Your task to perform on an android device: turn on bluetooth scan Image 0: 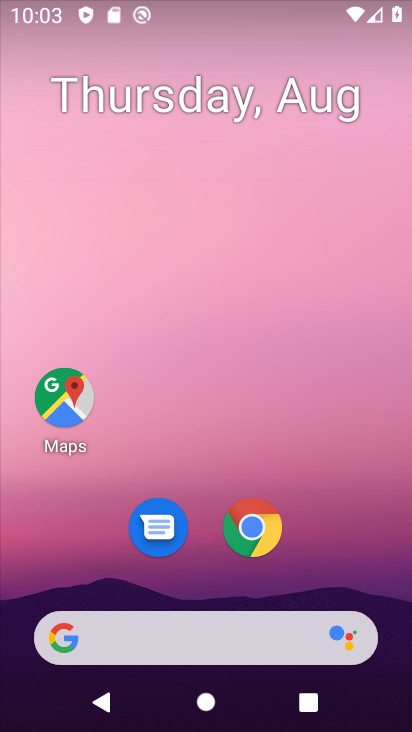
Step 0: drag from (204, 446) to (323, 95)
Your task to perform on an android device: turn on bluetooth scan Image 1: 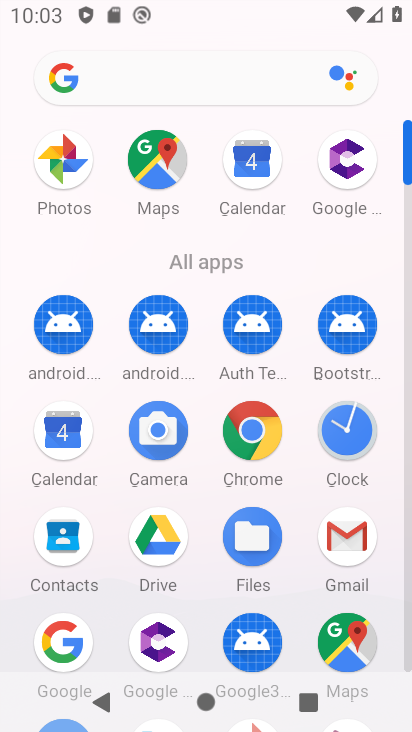
Step 1: drag from (226, 593) to (340, 51)
Your task to perform on an android device: turn on bluetooth scan Image 2: 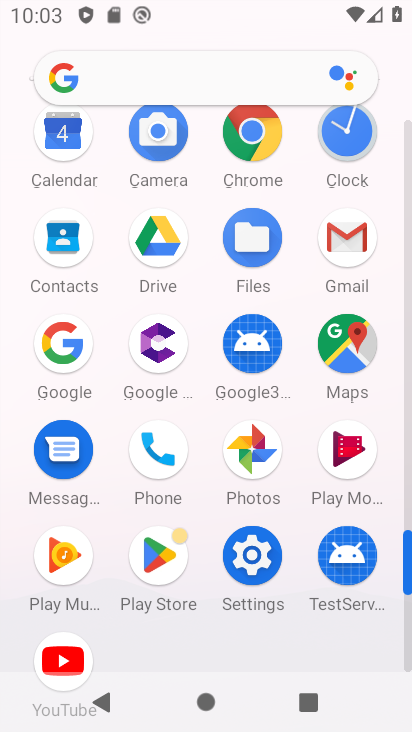
Step 2: click (240, 551)
Your task to perform on an android device: turn on bluetooth scan Image 3: 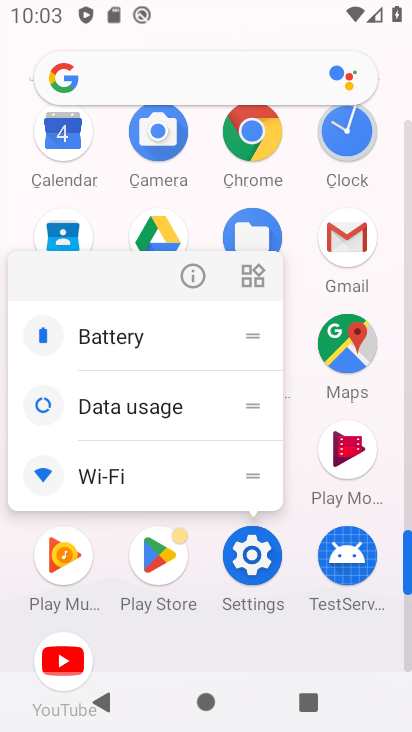
Step 3: click (261, 555)
Your task to perform on an android device: turn on bluetooth scan Image 4: 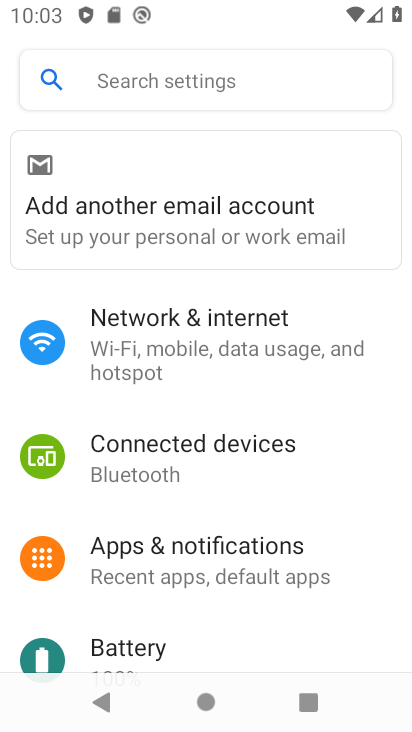
Step 4: drag from (327, 618) to (350, 36)
Your task to perform on an android device: turn on bluetooth scan Image 5: 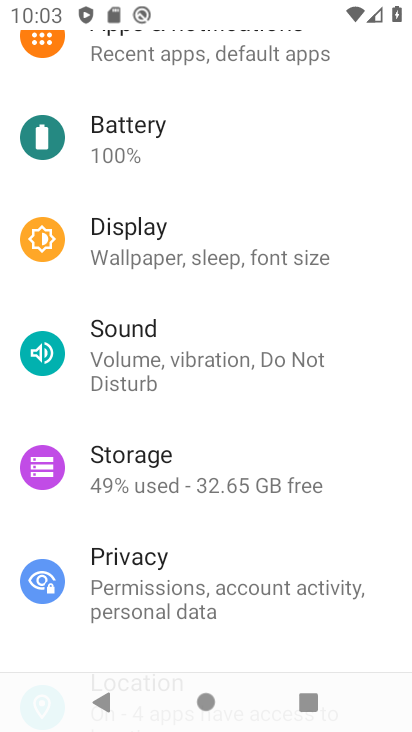
Step 5: drag from (198, 609) to (122, 725)
Your task to perform on an android device: turn on bluetooth scan Image 6: 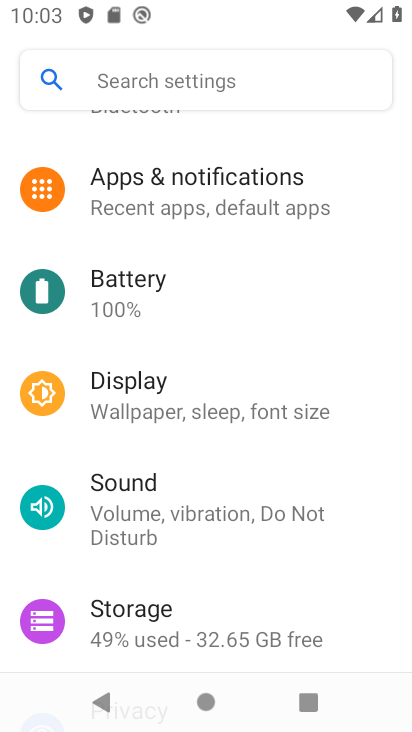
Step 6: drag from (180, 614) to (306, 65)
Your task to perform on an android device: turn on bluetooth scan Image 7: 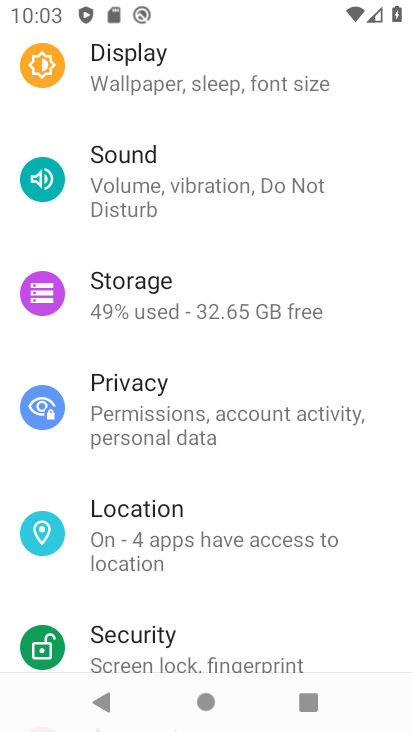
Step 7: click (212, 540)
Your task to perform on an android device: turn on bluetooth scan Image 8: 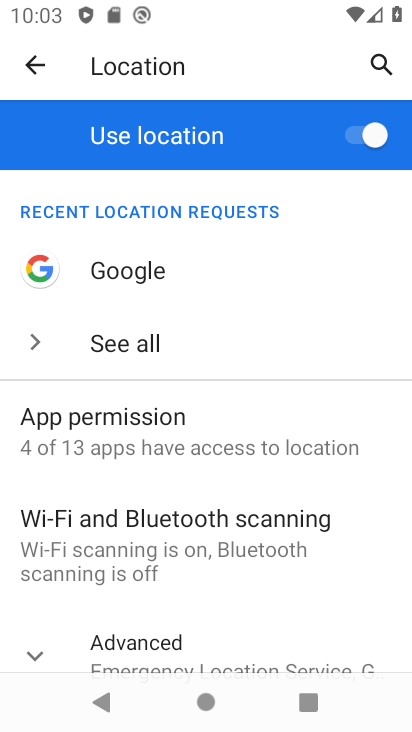
Step 8: drag from (290, 528) to (264, 50)
Your task to perform on an android device: turn on bluetooth scan Image 9: 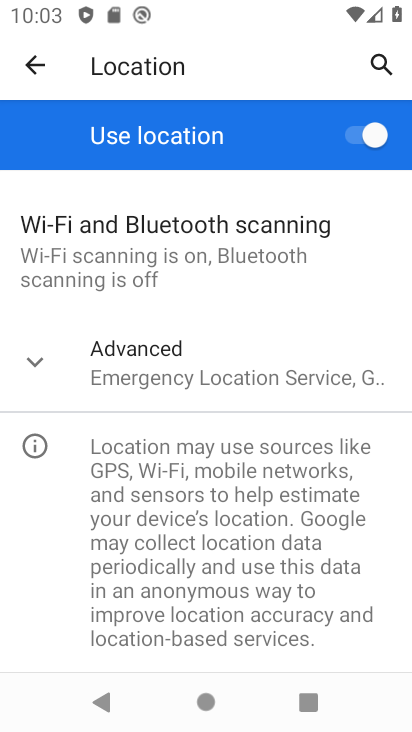
Step 9: click (210, 260)
Your task to perform on an android device: turn on bluetooth scan Image 10: 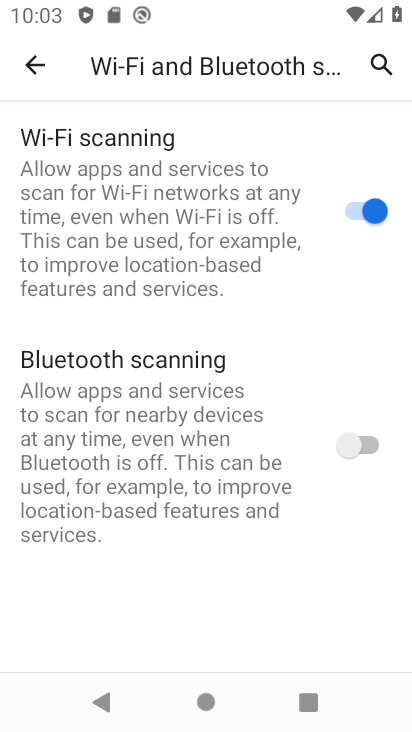
Step 10: click (354, 442)
Your task to perform on an android device: turn on bluetooth scan Image 11: 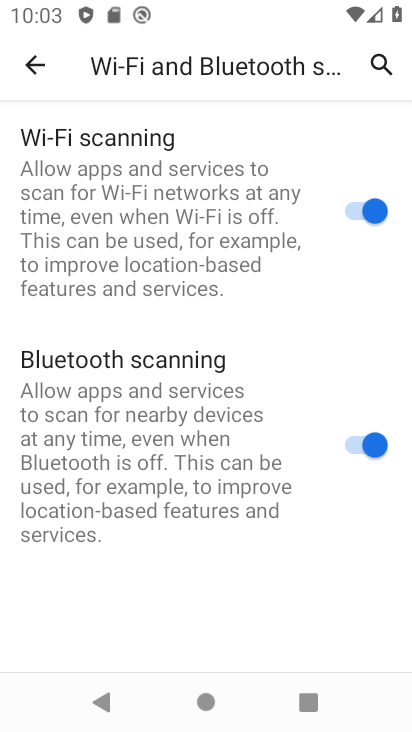
Step 11: task complete